Your task to perform on an android device: Go to network settings Image 0: 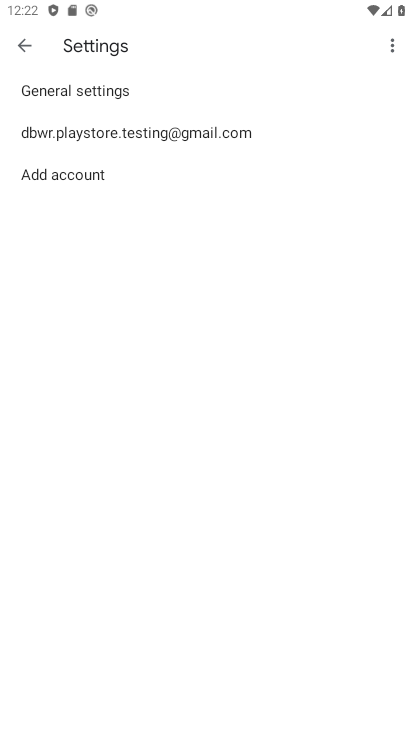
Step 0: press back button
Your task to perform on an android device: Go to network settings Image 1: 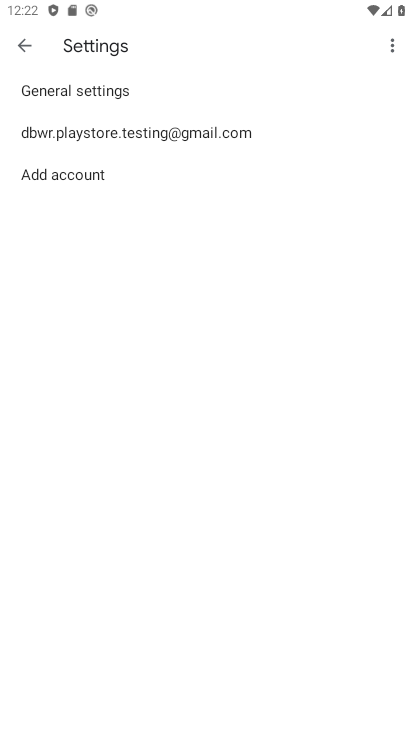
Step 1: press home button
Your task to perform on an android device: Go to network settings Image 2: 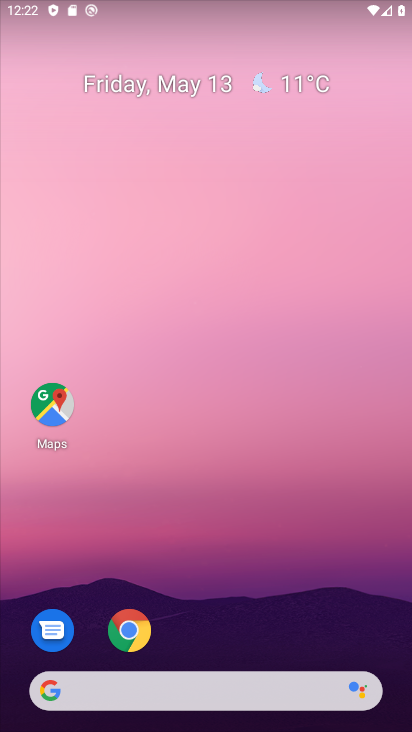
Step 2: drag from (63, 490) to (202, 255)
Your task to perform on an android device: Go to network settings Image 3: 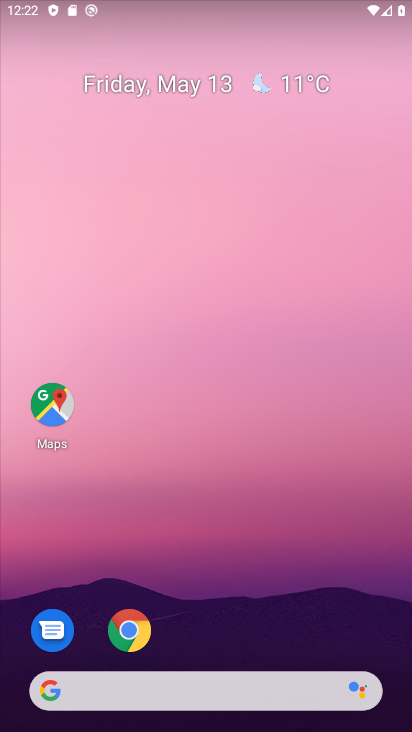
Step 3: drag from (111, 486) to (367, 100)
Your task to perform on an android device: Go to network settings Image 4: 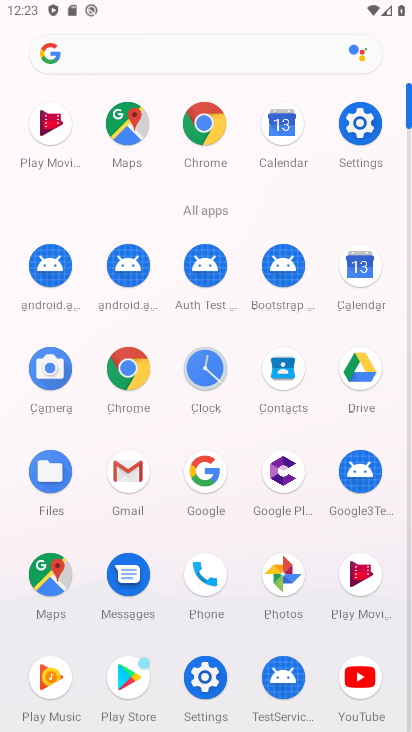
Step 4: click (359, 130)
Your task to perform on an android device: Go to network settings Image 5: 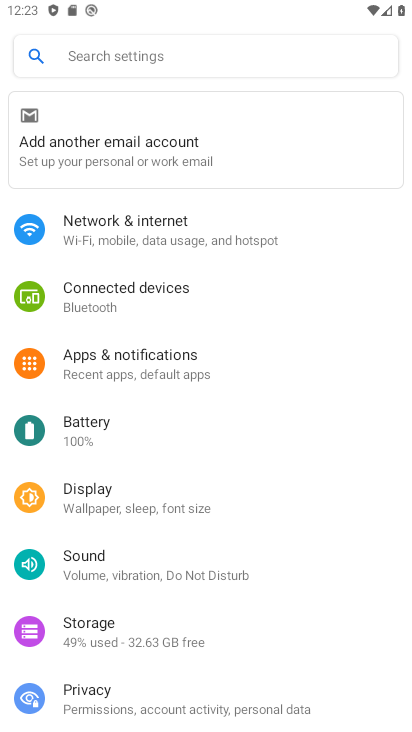
Step 5: click (183, 239)
Your task to perform on an android device: Go to network settings Image 6: 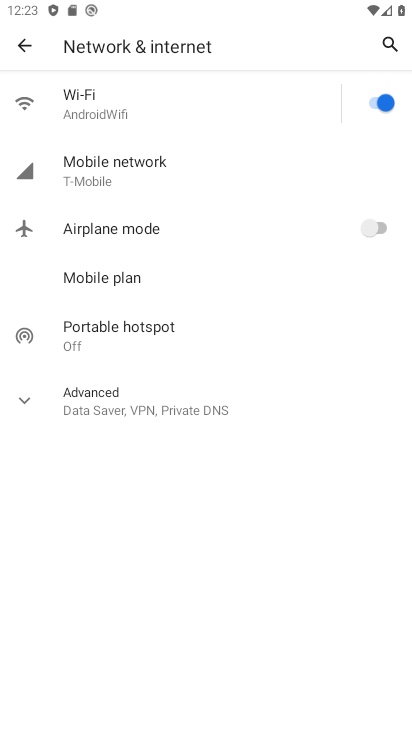
Step 6: click (167, 164)
Your task to perform on an android device: Go to network settings Image 7: 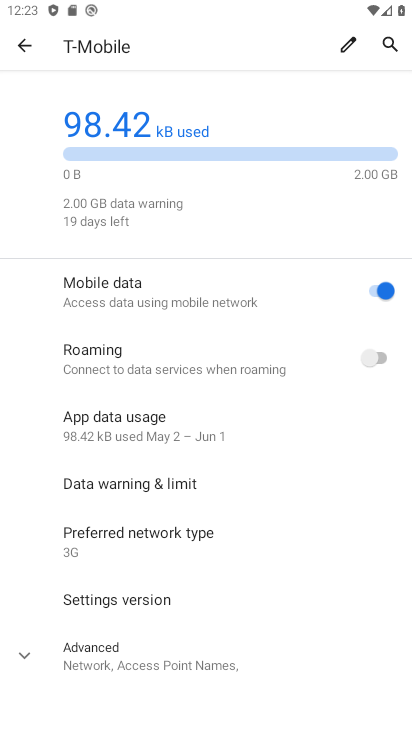
Step 7: task complete